Your task to perform on an android device: open app "TextNow: Call + Text Unlimited" (install if not already installed) Image 0: 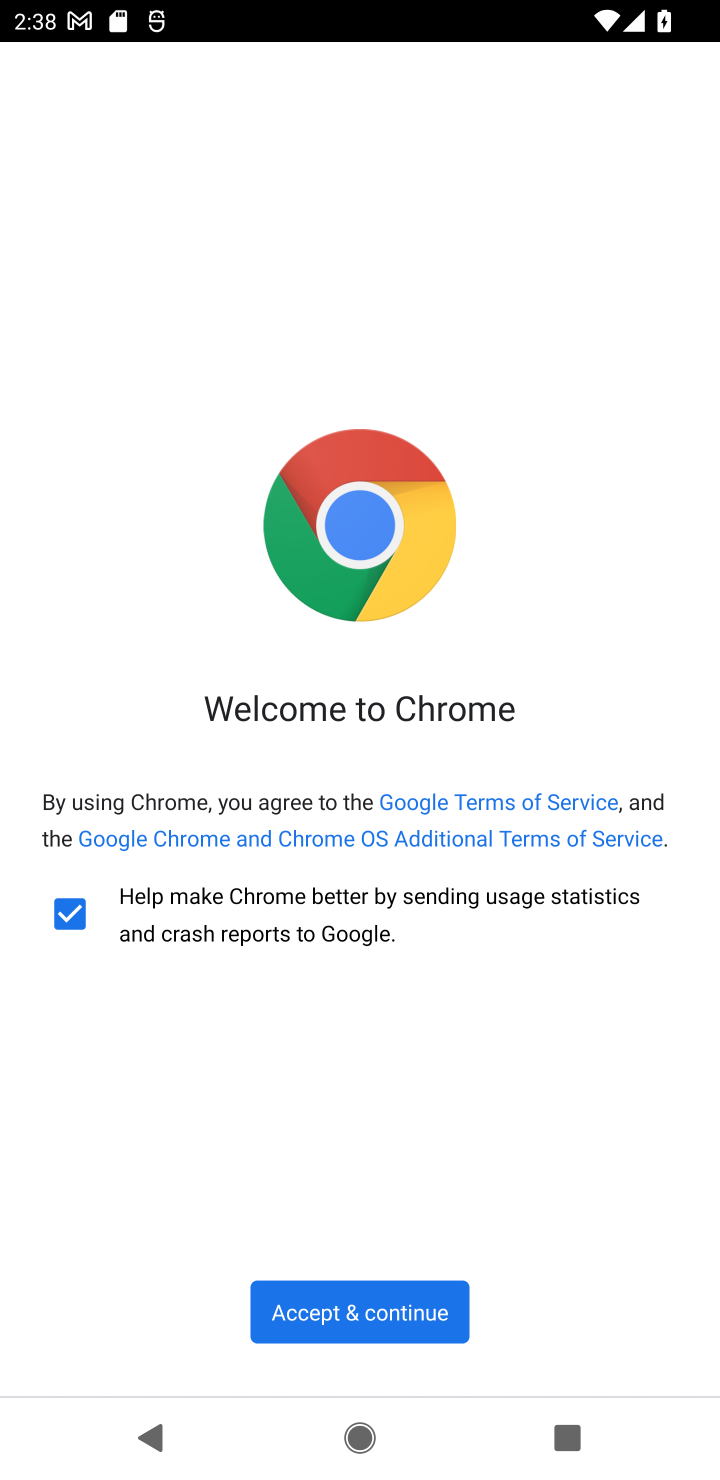
Step 0: press home button
Your task to perform on an android device: open app "TextNow: Call + Text Unlimited" (install if not already installed) Image 1: 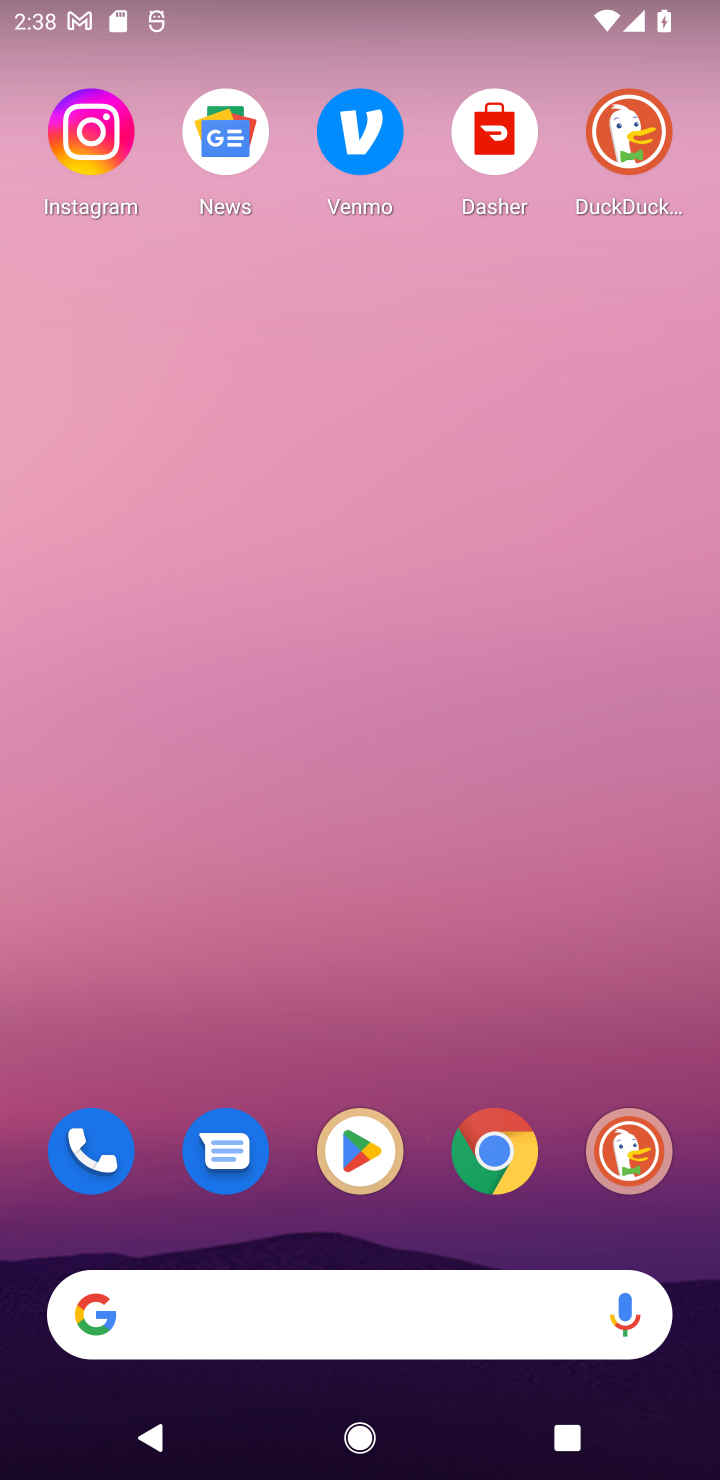
Step 1: click (362, 1150)
Your task to perform on an android device: open app "TextNow: Call + Text Unlimited" (install if not already installed) Image 2: 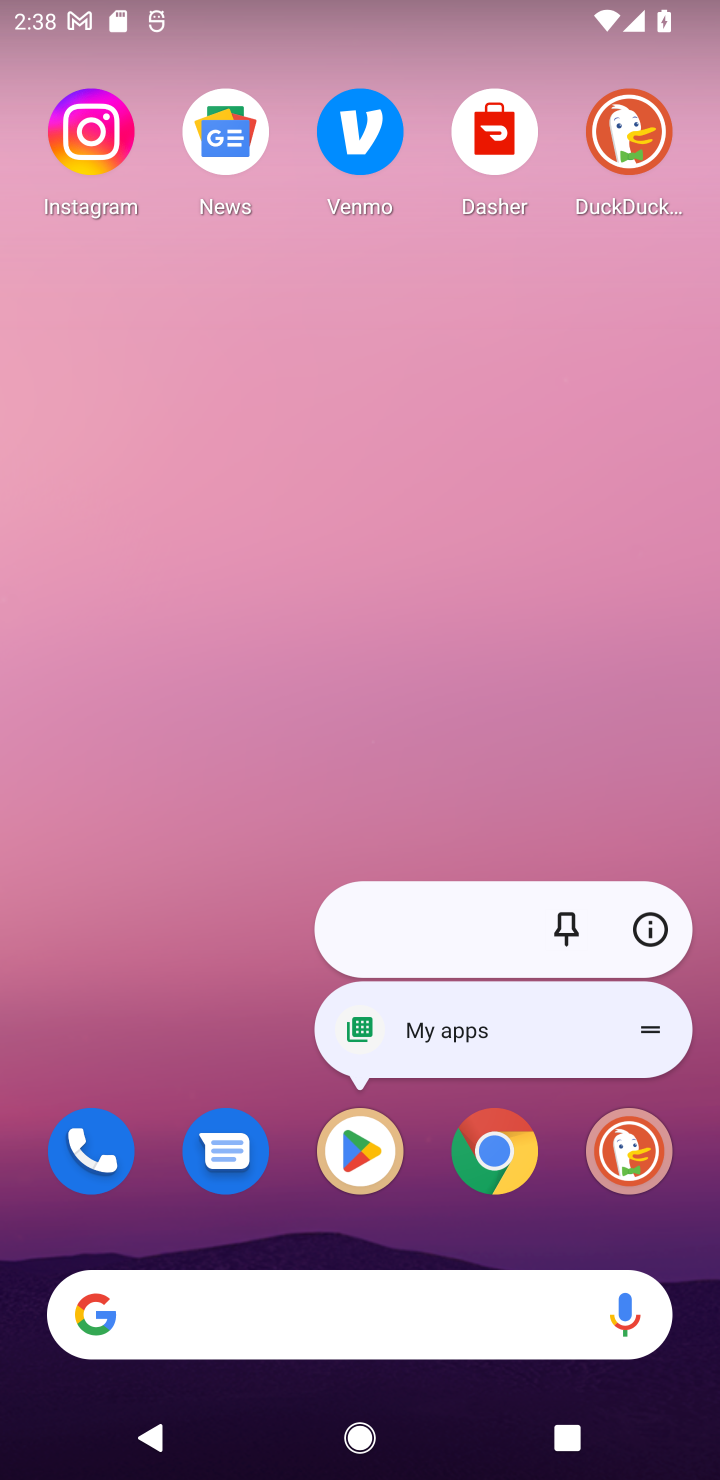
Step 2: click (362, 1153)
Your task to perform on an android device: open app "TextNow: Call + Text Unlimited" (install if not already installed) Image 3: 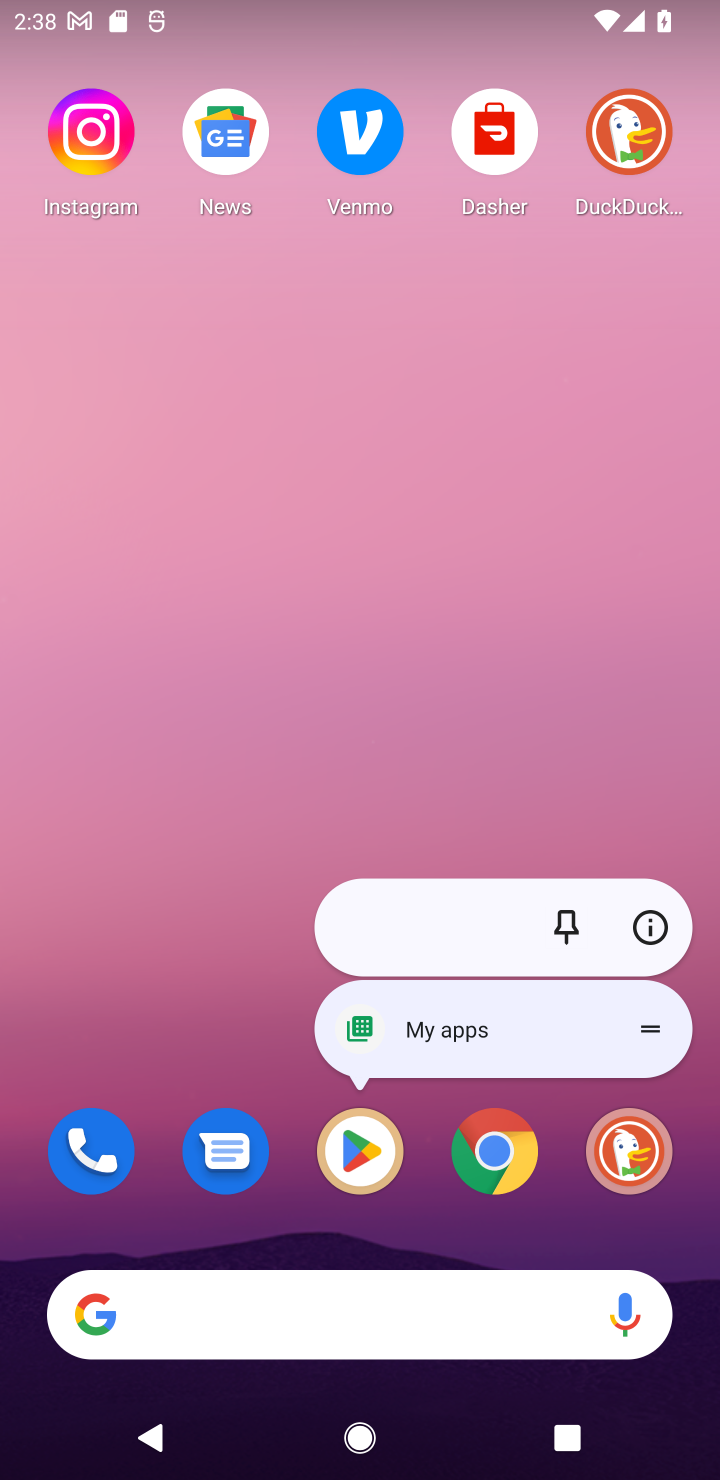
Step 3: click (362, 1153)
Your task to perform on an android device: open app "TextNow: Call + Text Unlimited" (install if not already installed) Image 4: 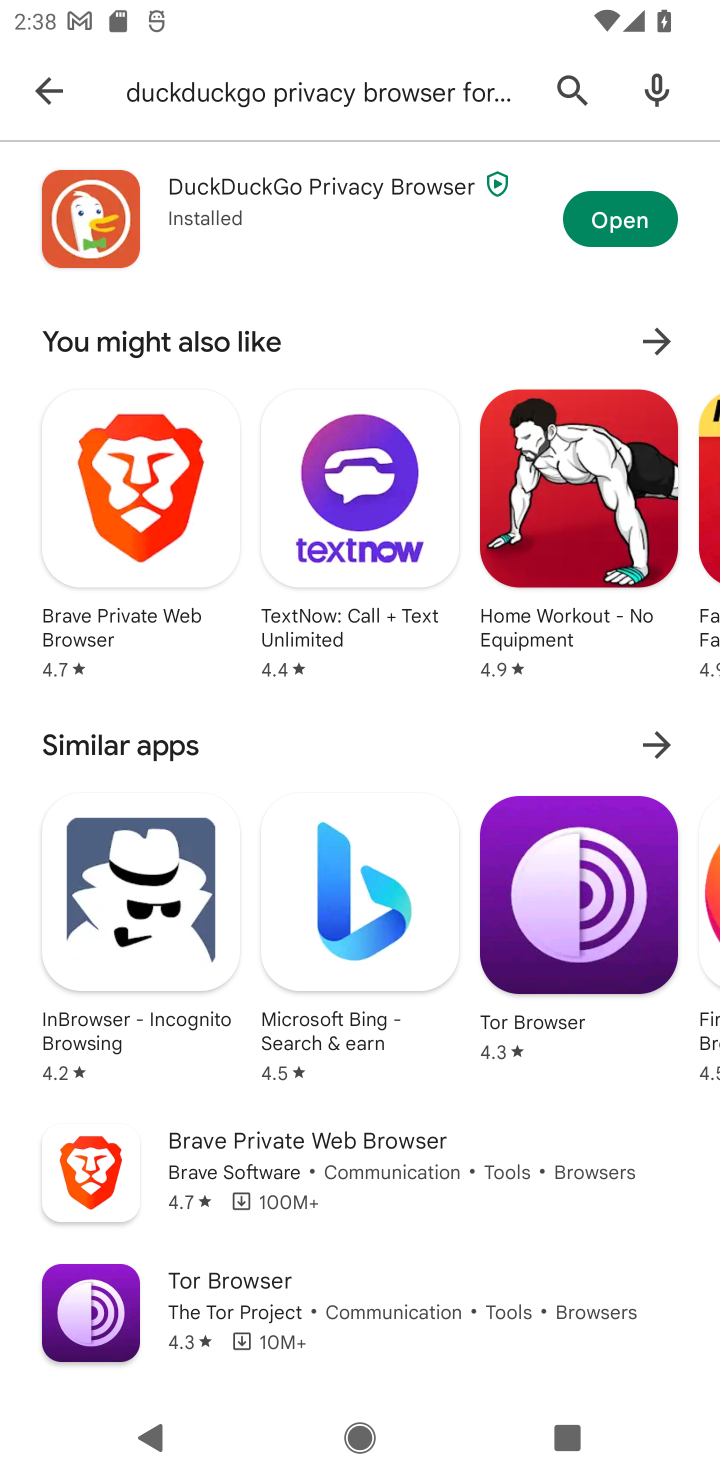
Step 4: click (570, 91)
Your task to perform on an android device: open app "TextNow: Call + Text Unlimited" (install if not already installed) Image 5: 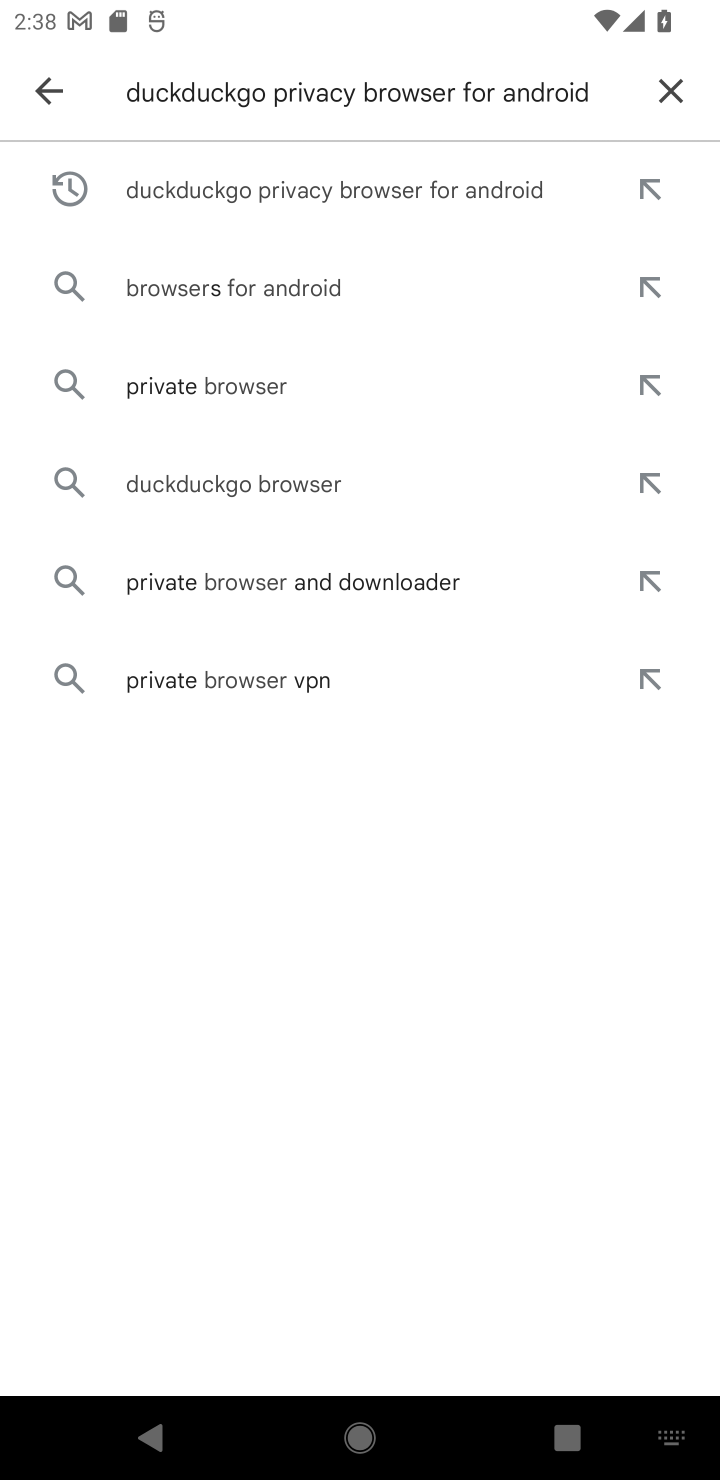
Step 5: click (669, 83)
Your task to perform on an android device: open app "TextNow: Call + Text Unlimited" (install if not already installed) Image 6: 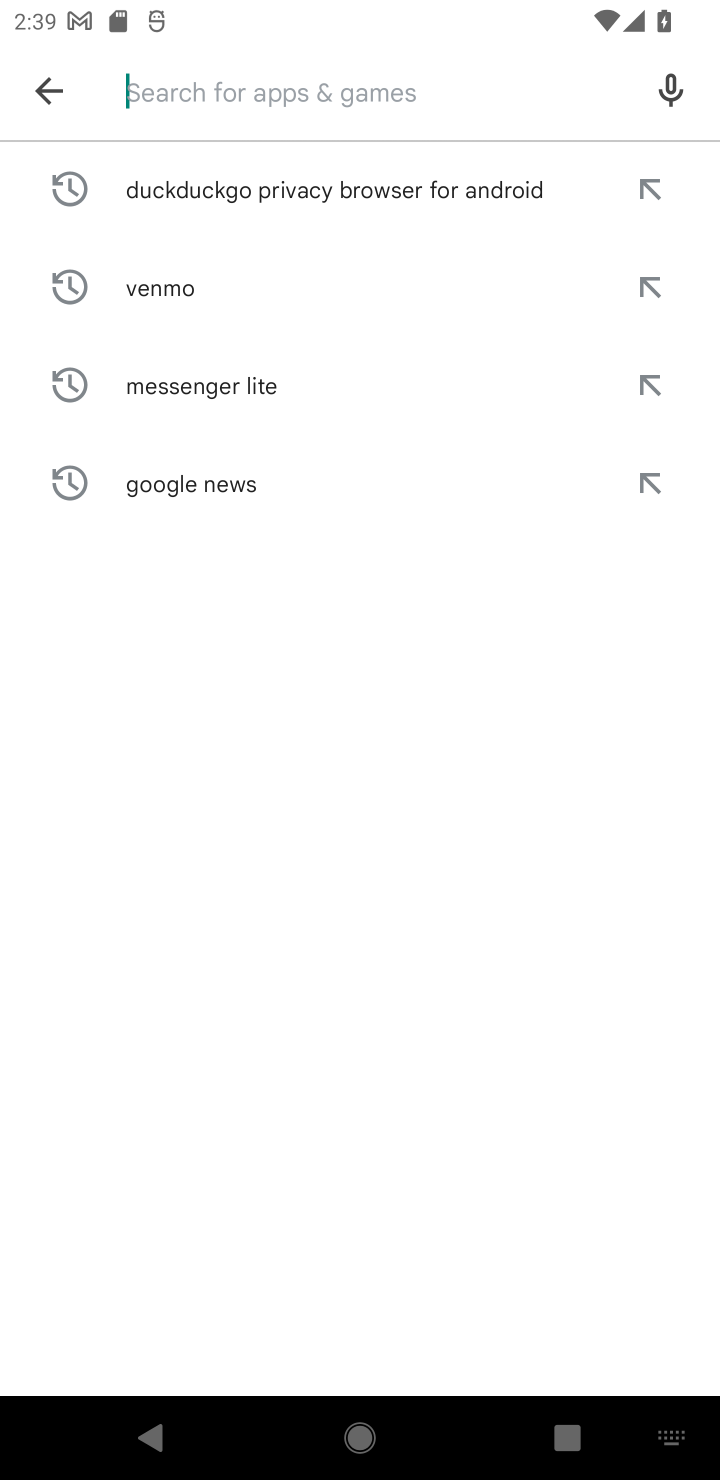
Step 6: type "TextNow: Call + Text Unlimited"
Your task to perform on an android device: open app "TextNow: Call + Text Unlimited" (install if not already installed) Image 7: 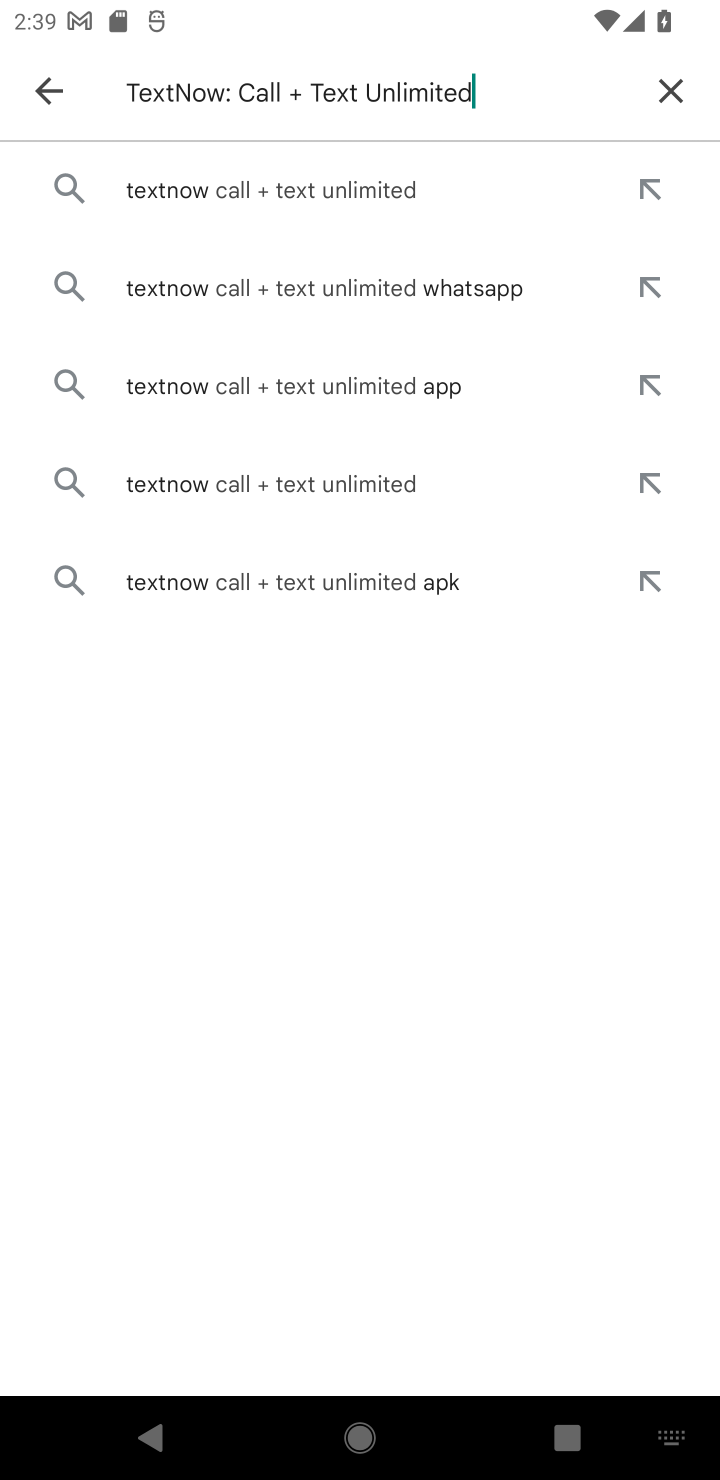
Step 7: click (367, 186)
Your task to perform on an android device: open app "TextNow: Call + Text Unlimited" (install if not already installed) Image 8: 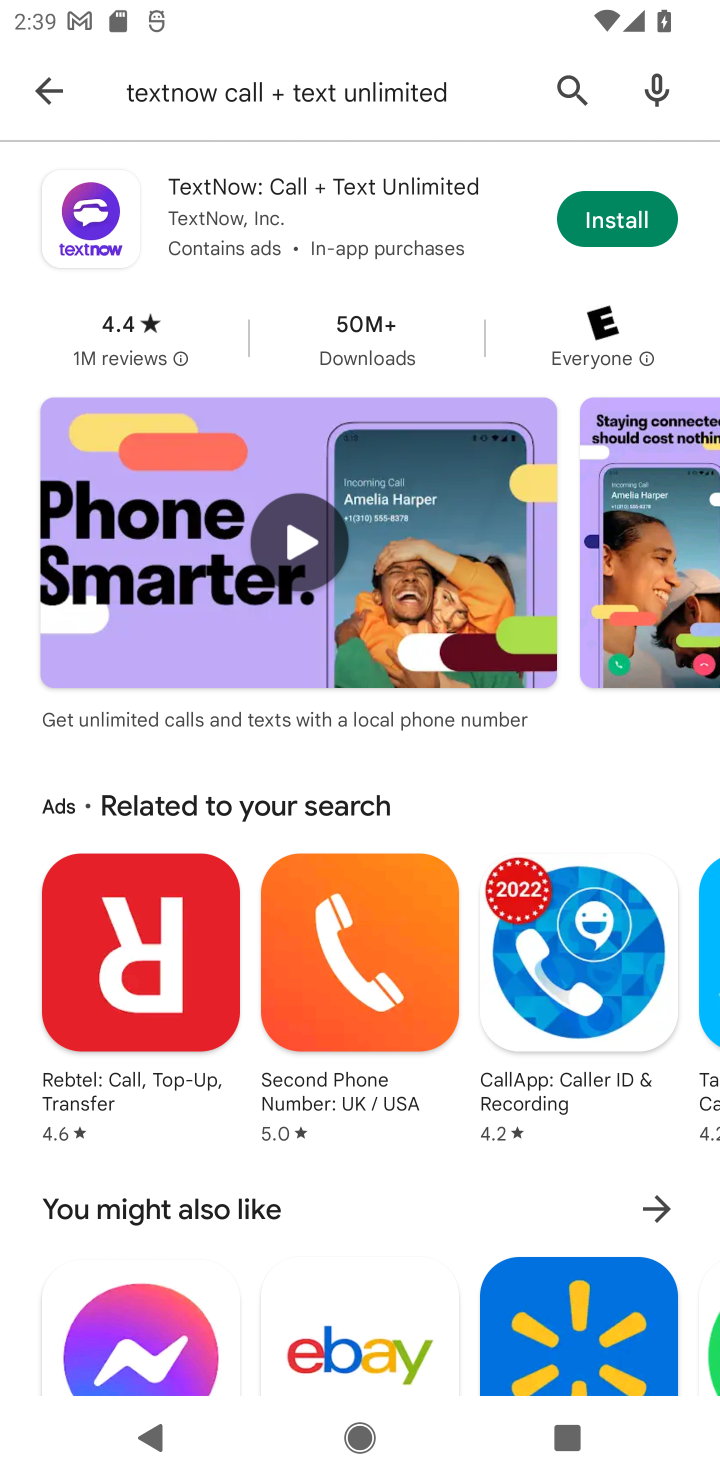
Step 8: click (644, 216)
Your task to perform on an android device: open app "TextNow: Call + Text Unlimited" (install if not already installed) Image 9: 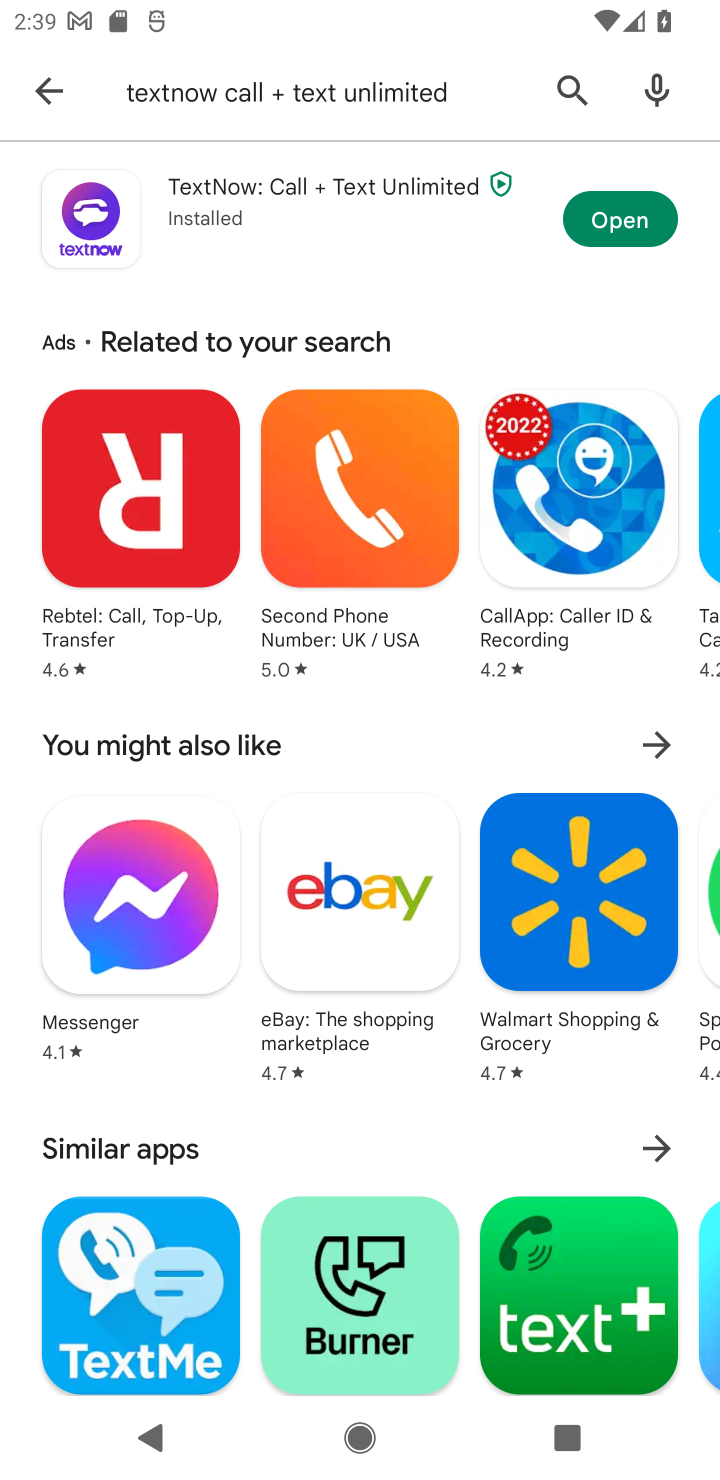
Step 9: click (638, 211)
Your task to perform on an android device: open app "TextNow: Call + Text Unlimited" (install if not already installed) Image 10: 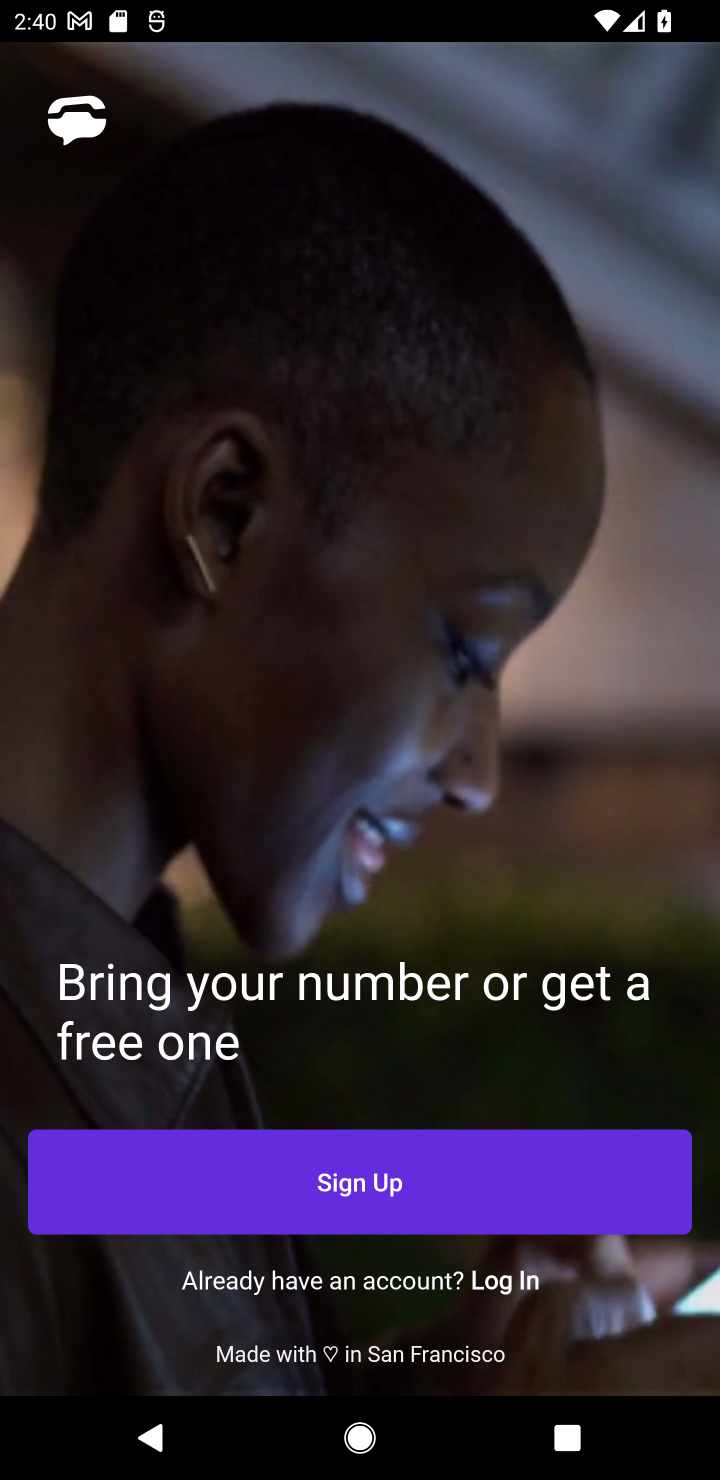
Step 10: task complete